Your task to perform on an android device: toggle wifi Image 0: 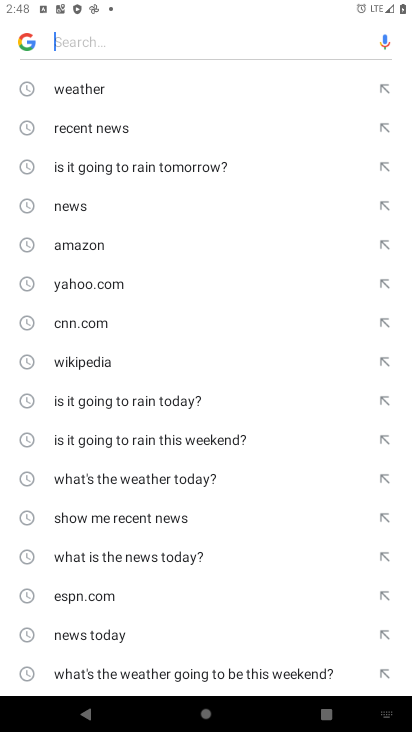
Step 0: press home button
Your task to perform on an android device: toggle wifi Image 1: 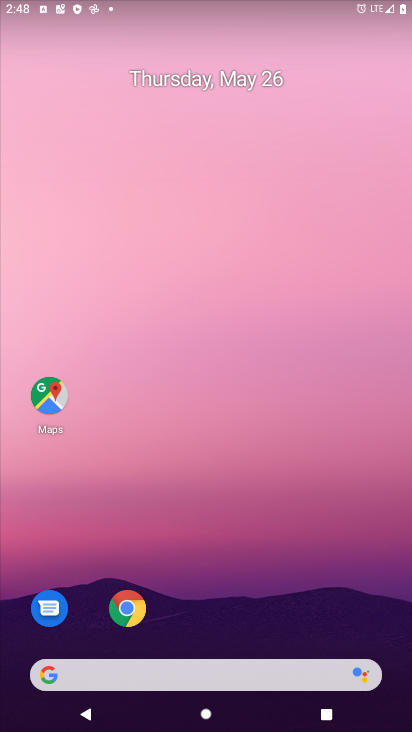
Step 1: drag from (362, 613) to (263, 125)
Your task to perform on an android device: toggle wifi Image 2: 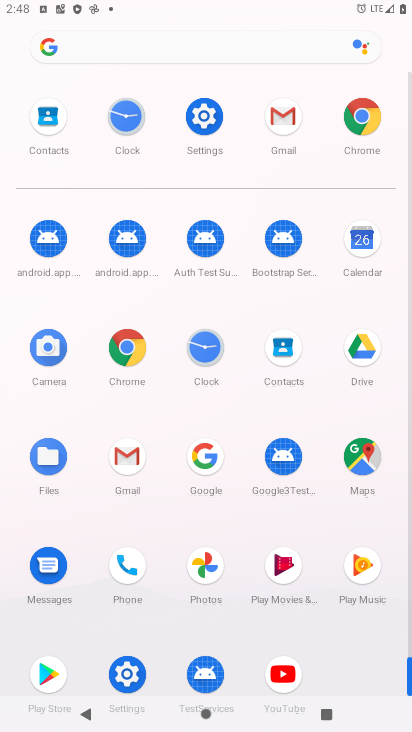
Step 2: click (126, 674)
Your task to perform on an android device: toggle wifi Image 3: 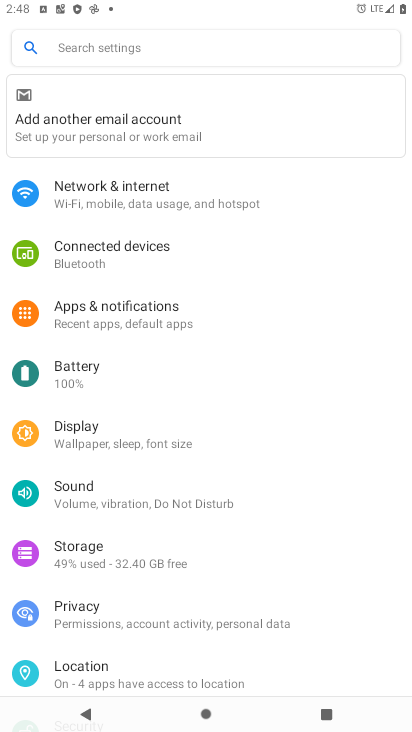
Step 3: click (130, 198)
Your task to perform on an android device: toggle wifi Image 4: 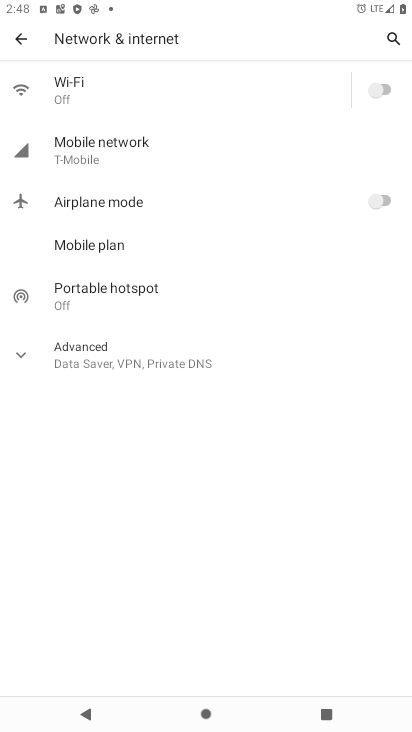
Step 4: click (384, 84)
Your task to perform on an android device: toggle wifi Image 5: 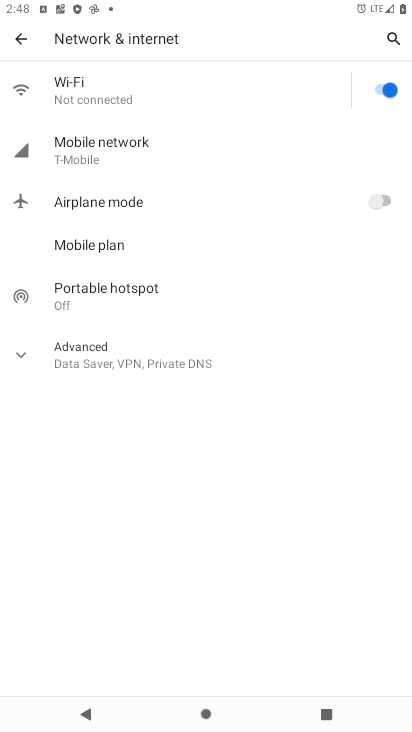
Step 5: task complete